Your task to perform on an android device: remove spam from my inbox in the gmail app Image 0: 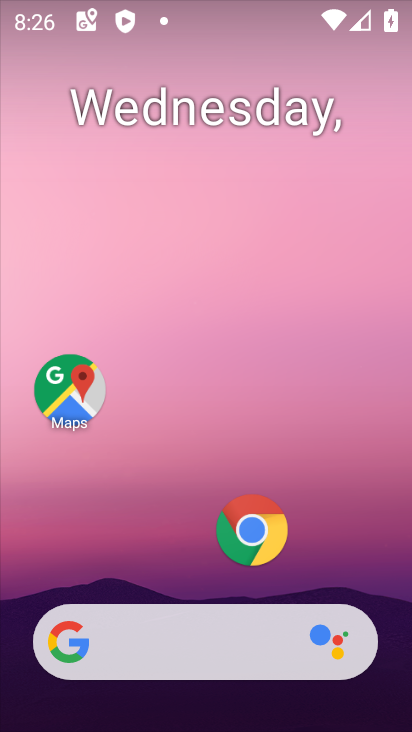
Step 0: drag from (155, 551) to (221, 94)
Your task to perform on an android device: remove spam from my inbox in the gmail app Image 1: 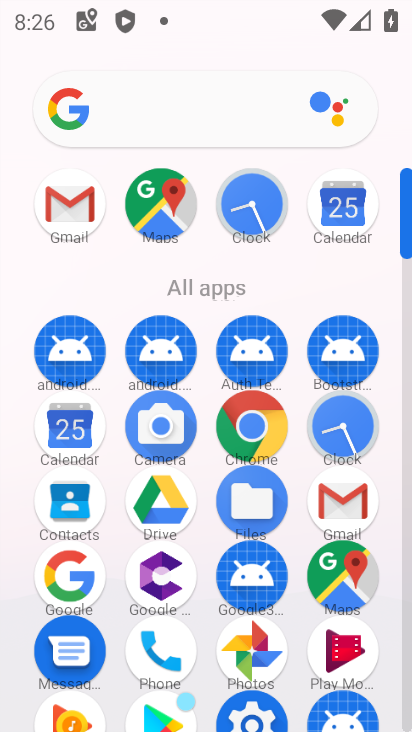
Step 1: click (74, 199)
Your task to perform on an android device: remove spam from my inbox in the gmail app Image 2: 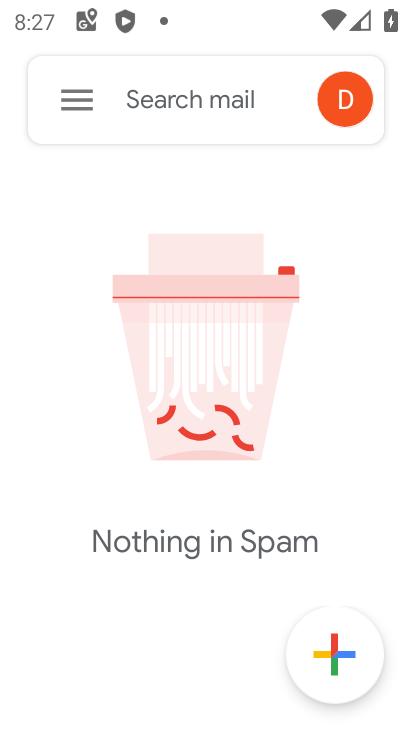
Step 2: task complete